Your task to perform on an android device: Do I have any events tomorrow? Image 0: 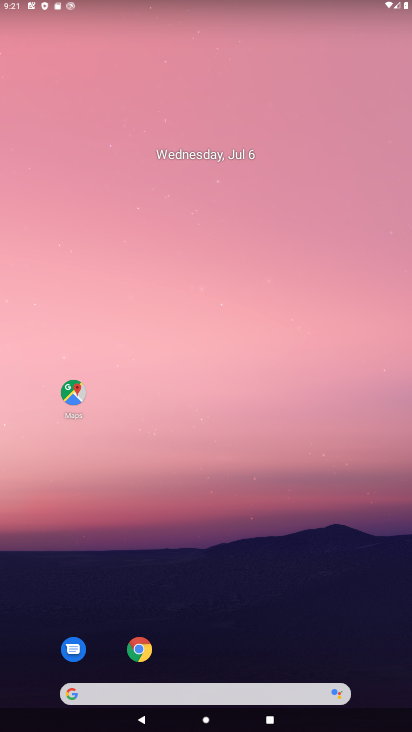
Step 0: drag from (256, 603) to (229, 146)
Your task to perform on an android device: Do I have any events tomorrow? Image 1: 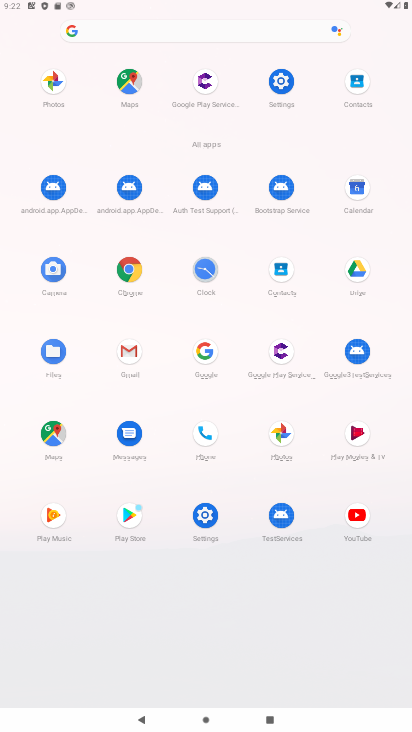
Step 1: click (361, 189)
Your task to perform on an android device: Do I have any events tomorrow? Image 2: 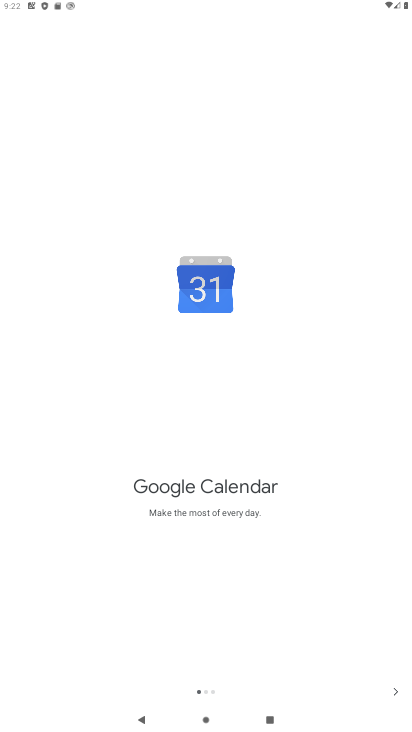
Step 2: click (399, 690)
Your task to perform on an android device: Do I have any events tomorrow? Image 3: 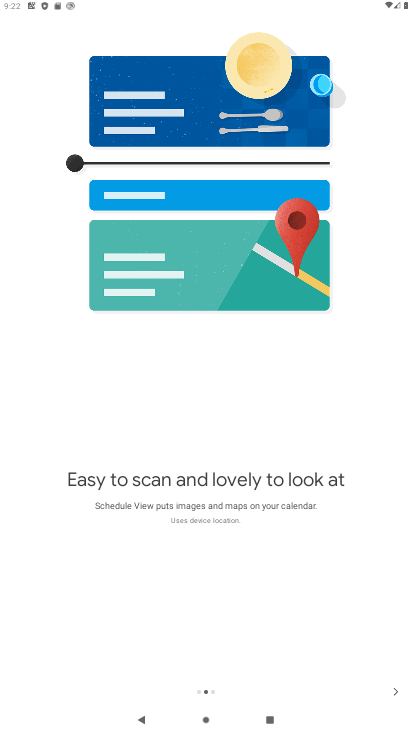
Step 3: click (399, 690)
Your task to perform on an android device: Do I have any events tomorrow? Image 4: 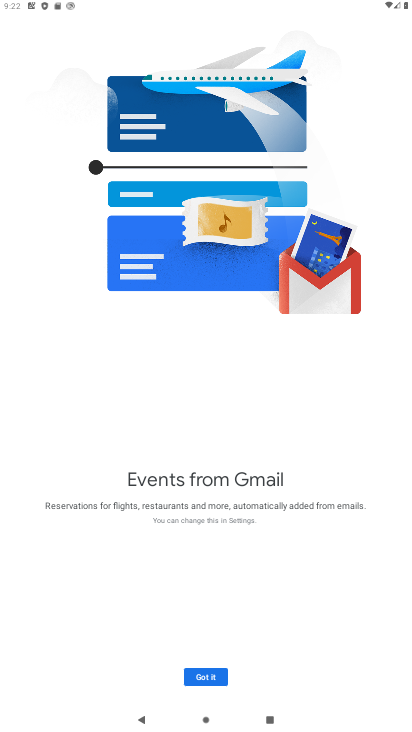
Step 4: click (204, 675)
Your task to perform on an android device: Do I have any events tomorrow? Image 5: 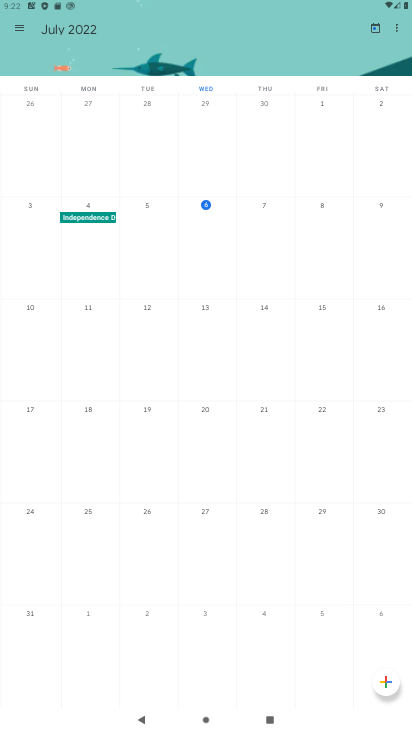
Step 5: click (271, 240)
Your task to perform on an android device: Do I have any events tomorrow? Image 6: 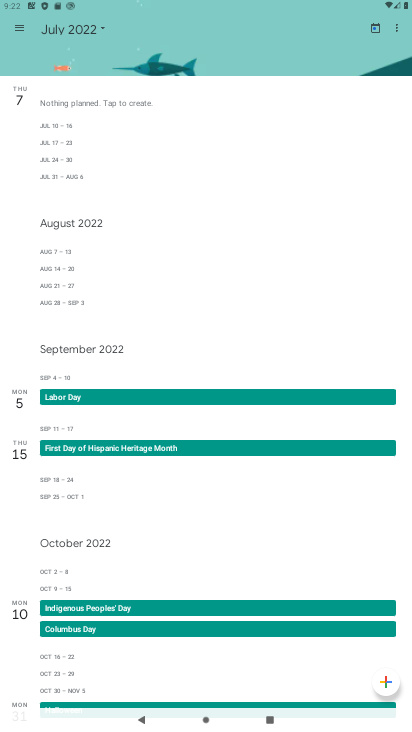
Step 6: task complete